Your task to perform on an android device: empty trash in the gmail app Image 0: 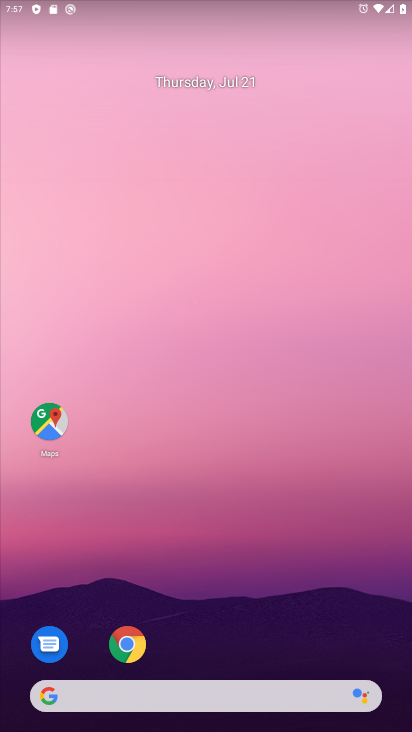
Step 0: drag from (360, 598) to (359, 241)
Your task to perform on an android device: empty trash in the gmail app Image 1: 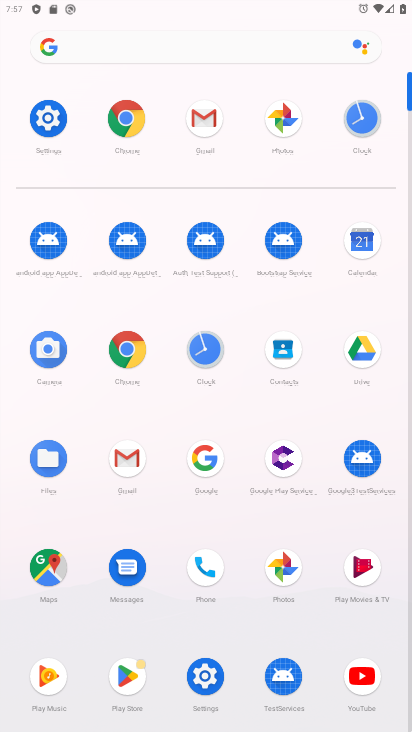
Step 1: click (124, 465)
Your task to perform on an android device: empty trash in the gmail app Image 2: 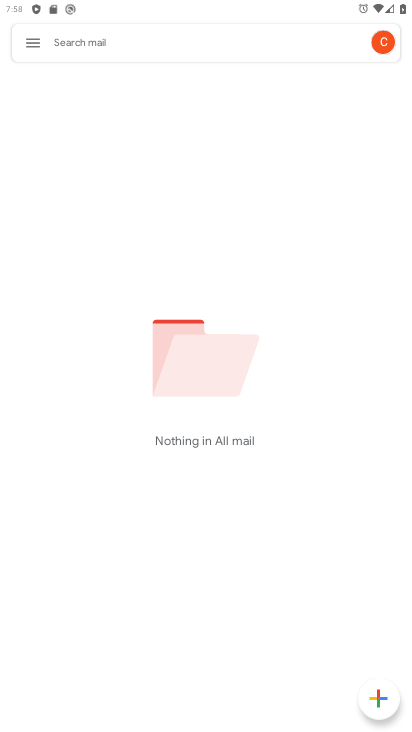
Step 2: click (30, 45)
Your task to perform on an android device: empty trash in the gmail app Image 3: 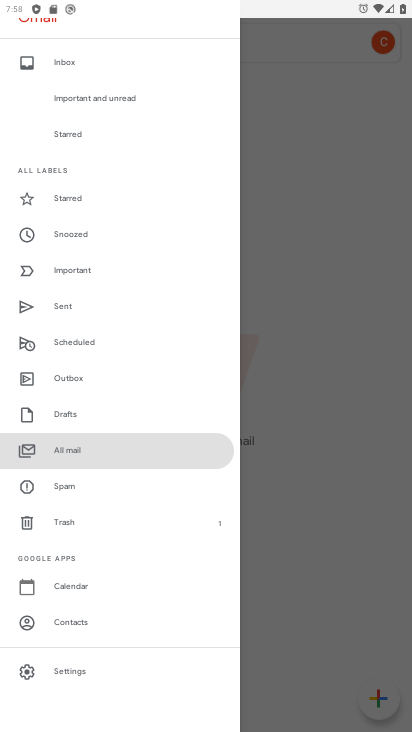
Step 3: click (69, 523)
Your task to perform on an android device: empty trash in the gmail app Image 4: 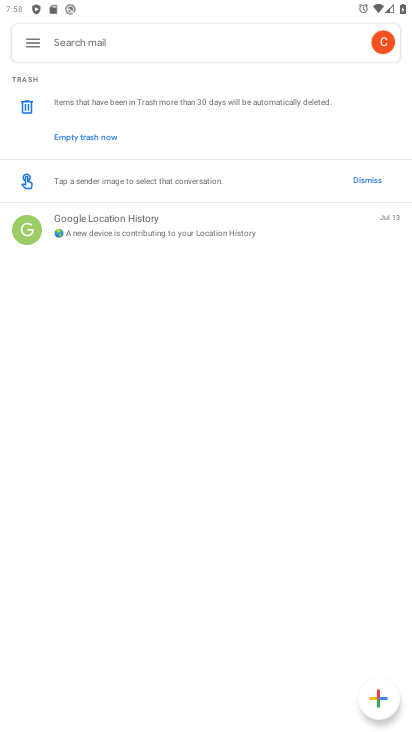
Step 4: click (102, 130)
Your task to perform on an android device: empty trash in the gmail app Image 5: 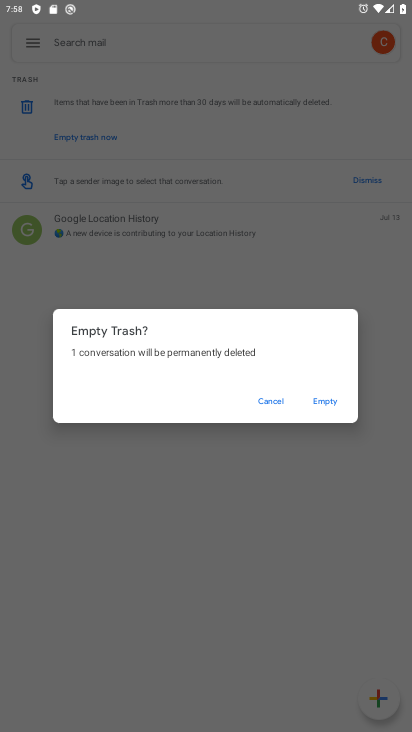
Step 5: click (328, 404)
Your task to perform on an android device: empty trash in the gmail app Image 6: 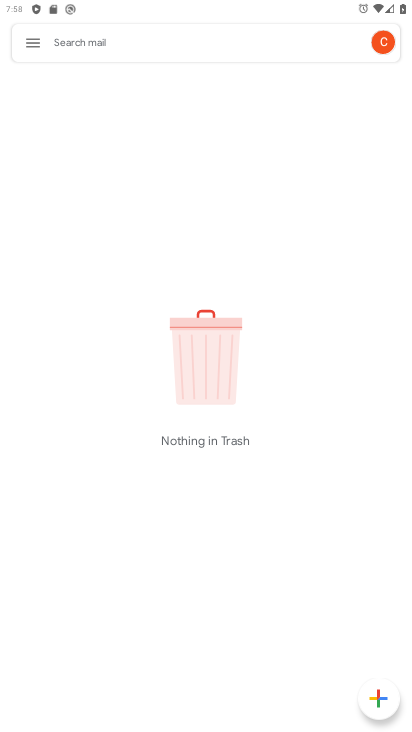
Step 6: task complete